Your task to perform on an android device: Search for Italian restaurants on Maps Image 0: 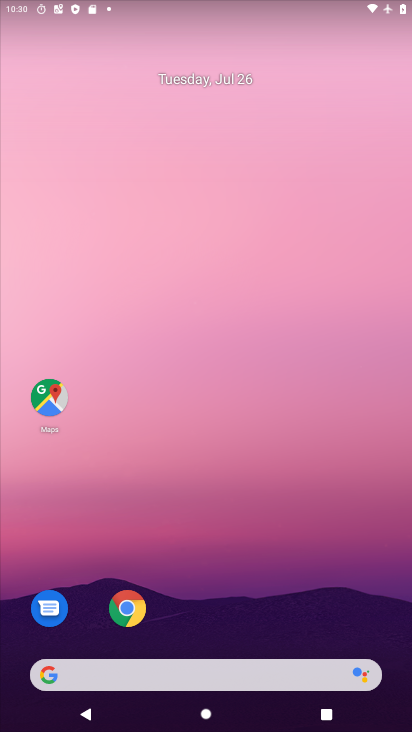
Step 0: click (62, 389)
Your task to perform on an android device: Search for Italian restaurants on Maps Image 1: 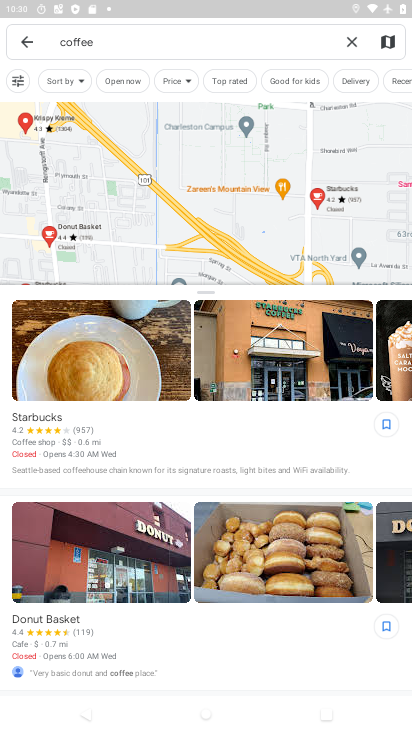
Step 1: click (355, 48)
Your task to perform on an android device: Search for Italian restaurants on Maps Image 2: 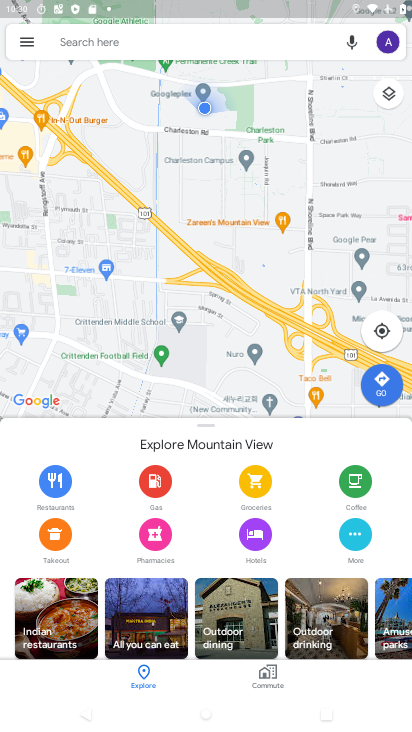
Step 2: click (167, 38)
Your task to perform on an android device: Search for Italian restaurants on Maps Image 3: 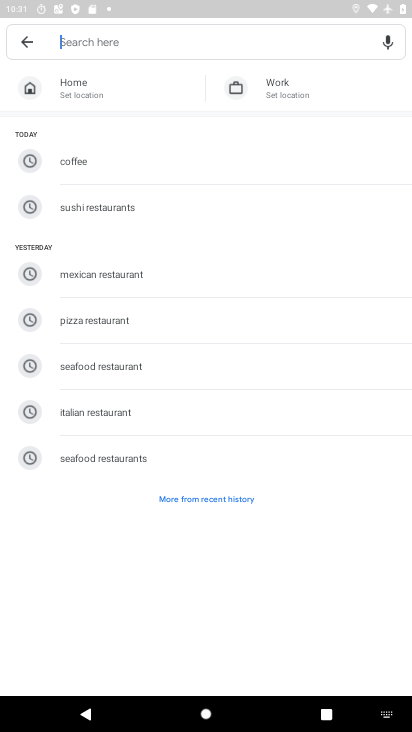
Step 3: type "Italian restaurants"
Your task to perform on an android device: Search for Italian restaurants on Maps Image 4: 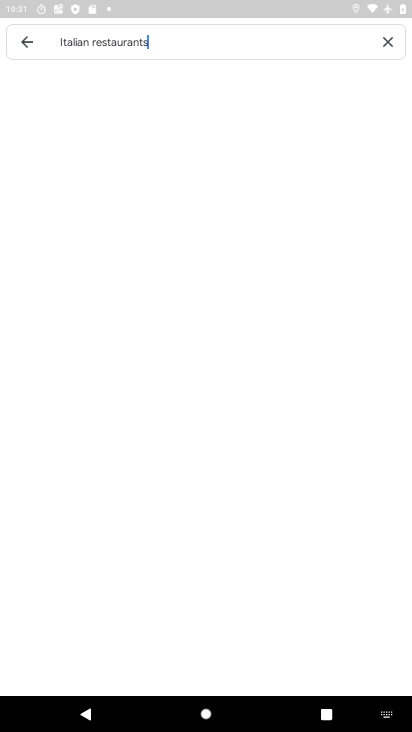
Step 4: type ""
Your task to perform on an android device: Search for Italian restaurants on Maps Image 5: 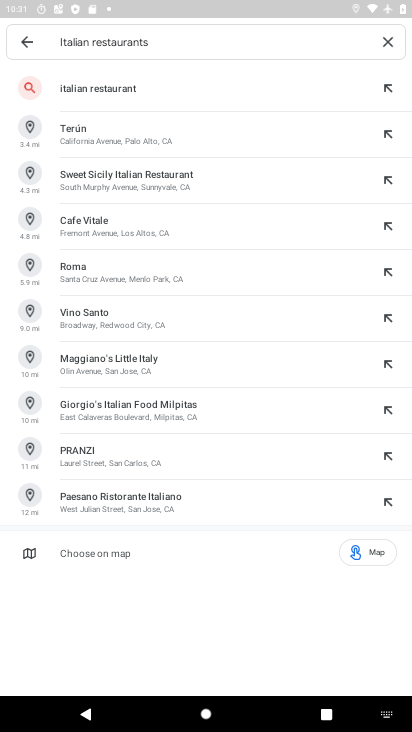
Step 5: click (152, 87)
Your task to perform on an android device: Search for Italian restaurants on Maps Image 6: 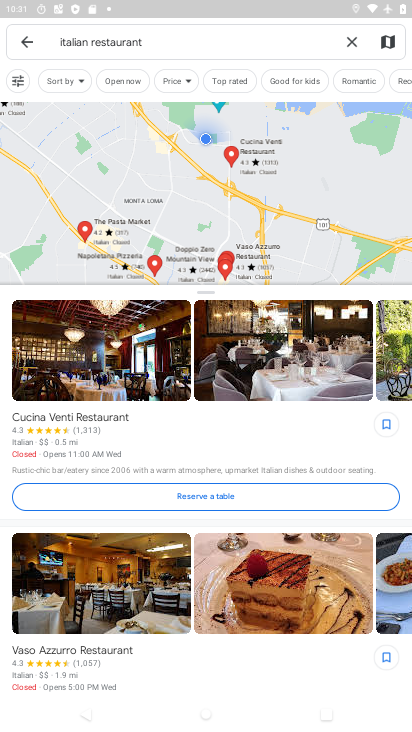
Step 6: task complete